Your task to perform on an android device: turn off improve location accuracy Image 0: 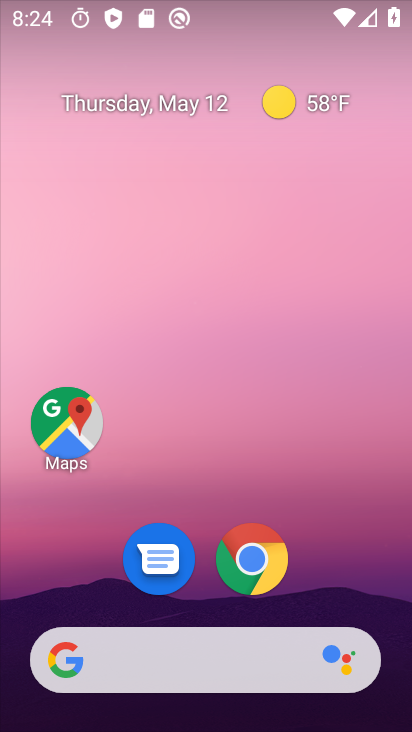
Step 0: drag from (351, 573) to (225, 91)
Your task to perform on an android device: turn off improve location accuracy Image 1: 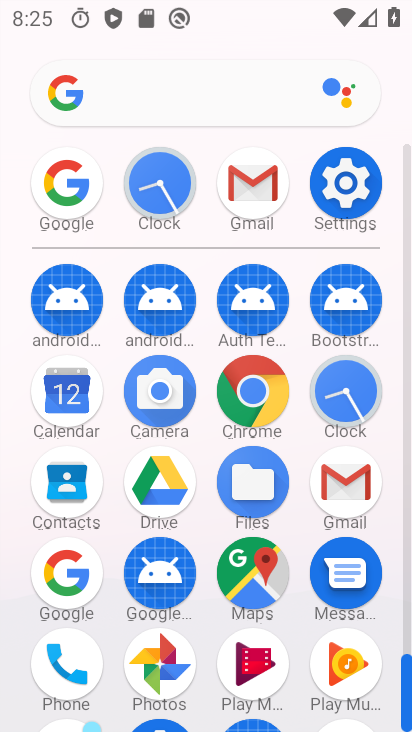
Step 1: click (346, 184)
Your task to perform on an android device: turn off improve location accuracy Image 2: 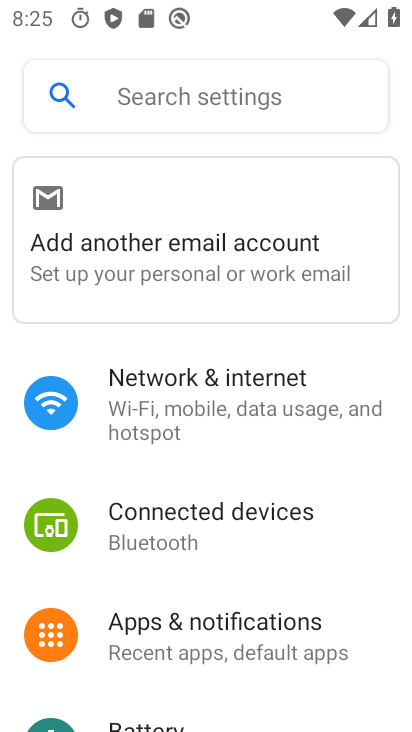
Step 2: drag from (178, 471) to (222, 370)
Your task to perform on an android device: turn off improve location accuracy Image 3: 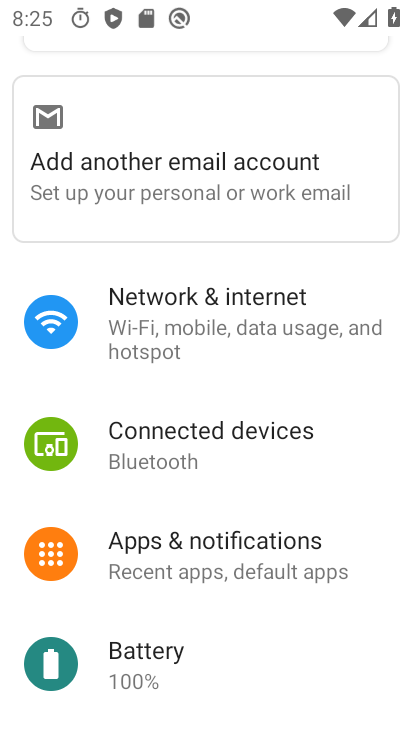
Step 3: drag from (197, 507) to (242, 396)
Your task to perform on an android device: turn off improve location accuracy Image 4: 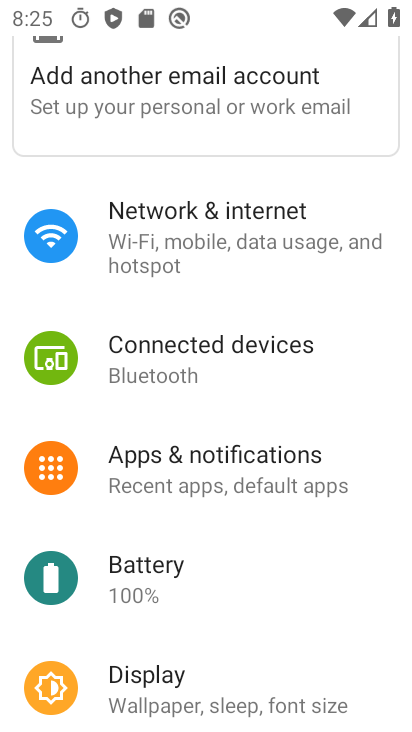
Step 4: drag from (178, 530) to (248, 406)
Your task to perform on an android device: turn off improve location accuracy Image 5: 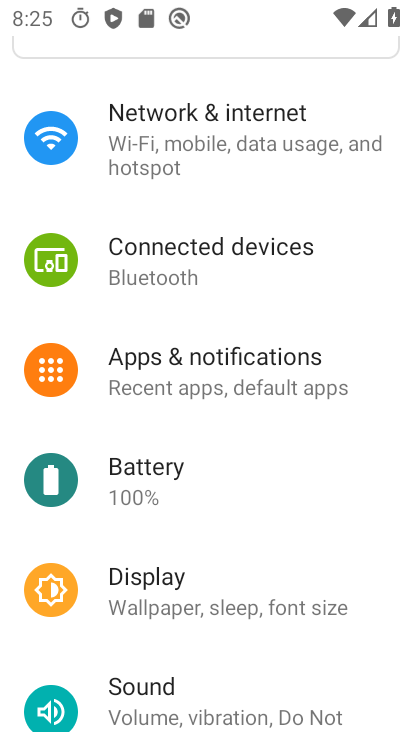
Step 5: drag from (170, 546) to (239, 444)
Your task to perform on an android device: turn off improve location accuracy Image 6: 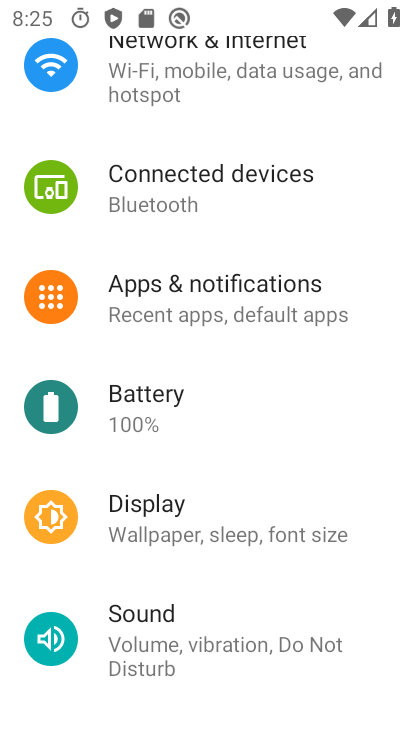
Step 6: drag from (198, 506) to (250, 425)
Your task to perform on an android device: turn off improve location accuracy Image 7: 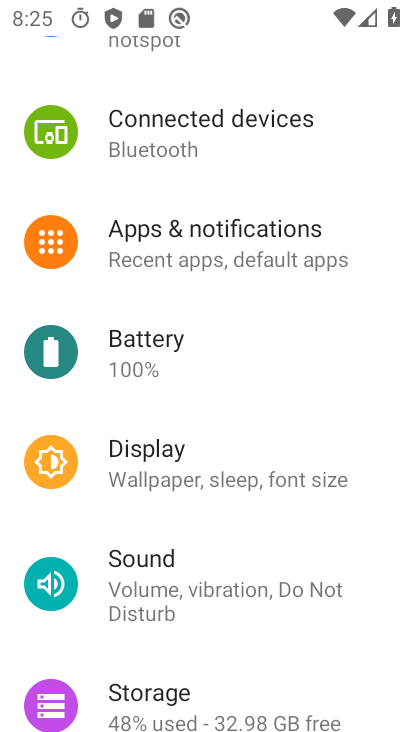
Step 7: drag from (155, 648) to (264, 438)
Your task to perform on an android device: turn off improve location accuracy Image 8: 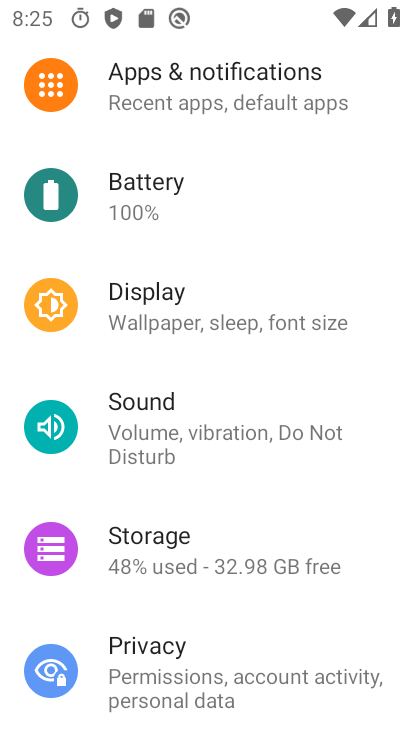
Step 8: drag from (157, 617) to (235, 415)
Your task to perform on an android device: turn off improve location accuracy Image 9: 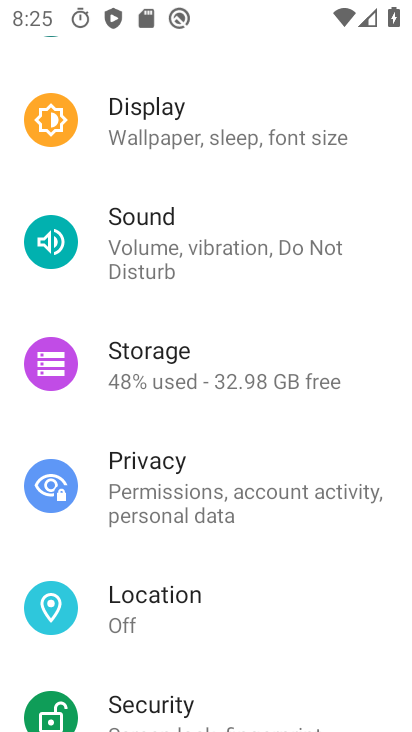
Step 9: drag from (162, 564) to (242, 405)
Your task to perform on an android device: turn off improve location accuracy Image 10: 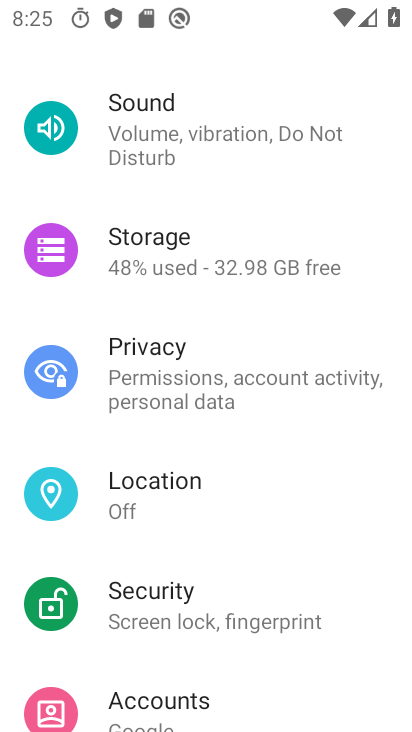
Step 10: click (178, 495)
Your task to perform on an android device: turn off improve location accuracy Image 11: 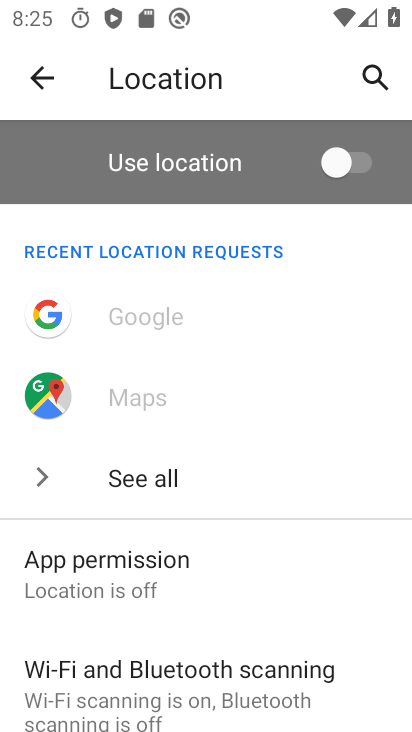
Step 11: drag from (230, 607) to (257, 452)
Your task to perform on an android device: turn off improve location accuracy Image 12: 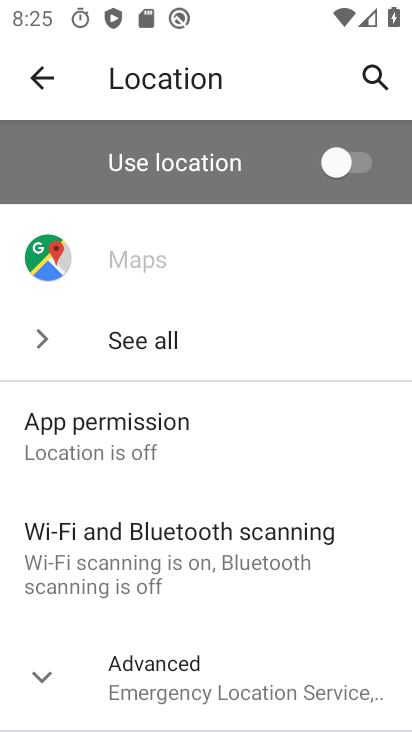
Step 12: drag from (191, 603) to (239, 491)
Your task to perform on an android device: turn off improve location accuracy Image 13: 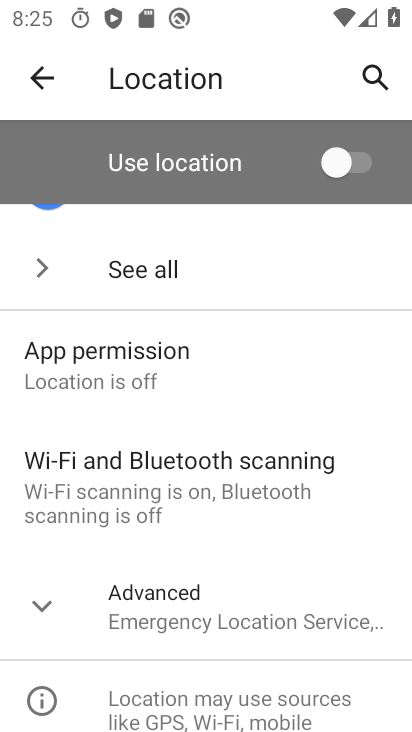
Step 13: click (169, 624)
Your task to perform on an android device: turn off improve location accuracy Image 14: 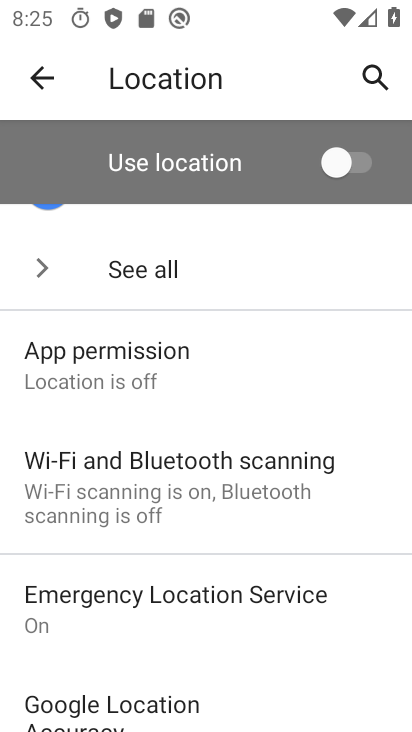
Step 14: drag from (155, 660) to (247, 433)
Your task to perform on an android device: turn off improve location accuracy Image 15: 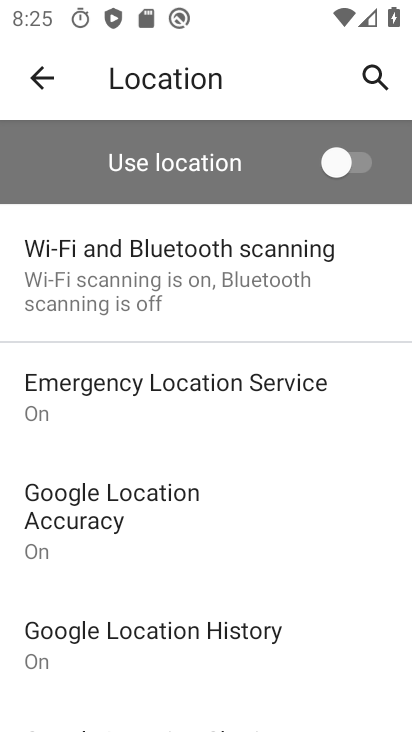
Step 15: click (171, 498)
Your task to perform on an android device: turn off improve location accuracy Image 16: 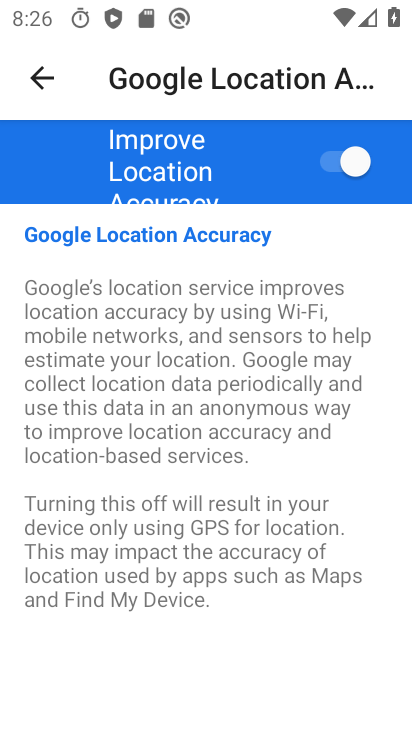
Step 16: click (343, 159)
Your task to perform on an android device: turn off improve location accuracy Image 17: 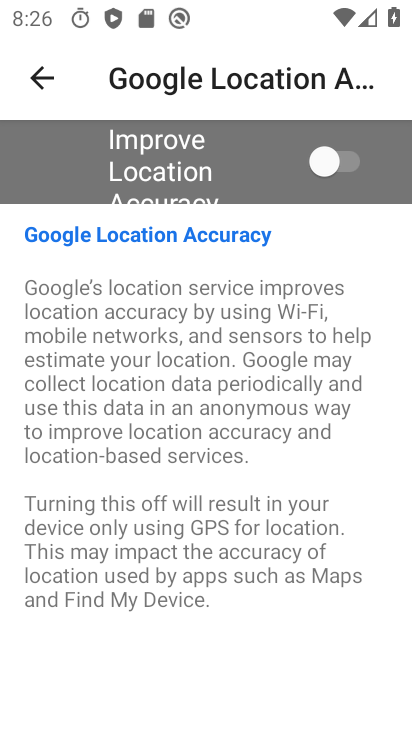
Step 17: task complete